Your task to perform on an android device: toggle javascript in the chrome app Image 0: 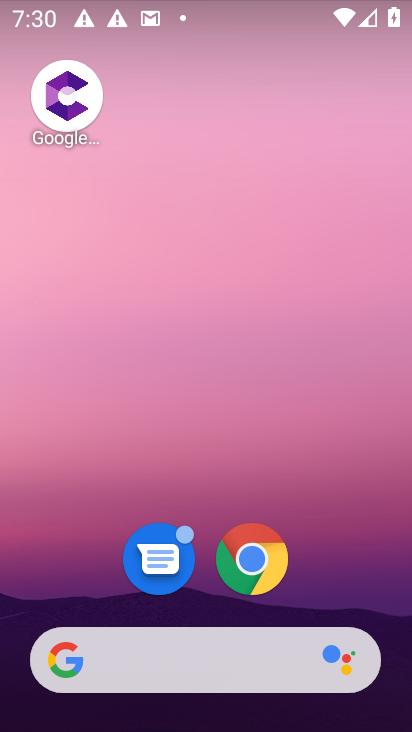
Step 0: click (242, 544)
Your task to perform on an android device: toggle javascript in the chrome app Image 1: 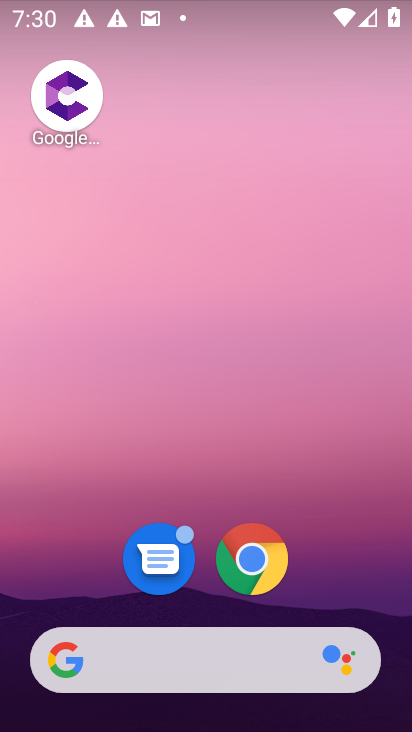
Step 1: click (242, 544)
Your task to perform on an android device: toggle javascript in the chrome app Image 2: 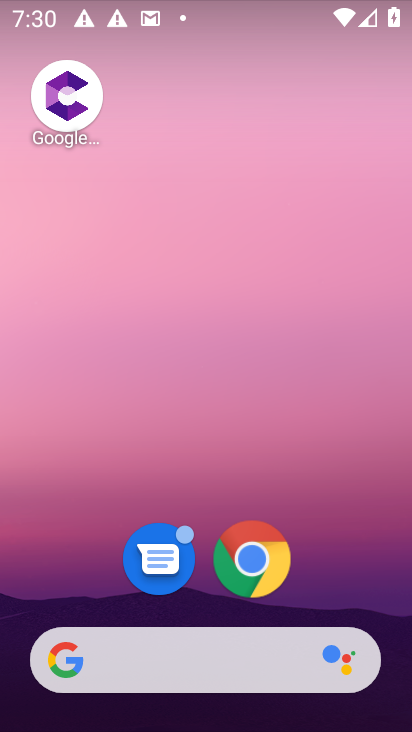
Step 2: click (242, 544)
Your task to perform on an android device: toggle javascript in the chrome app Image 3: 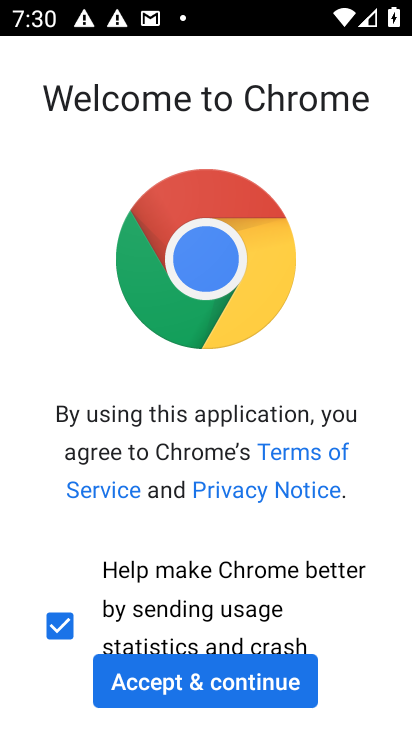
Step 3: click (117, 694)
Your task to perform on an android device: toggle javascript in the chrome app Image 4: 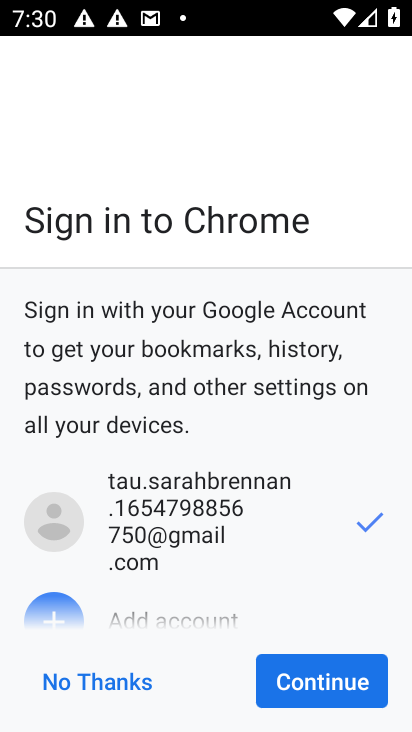
Step 4: click (282, 688)
Your task to perform on an android device: toggle javascript in the chrome app Image 5: 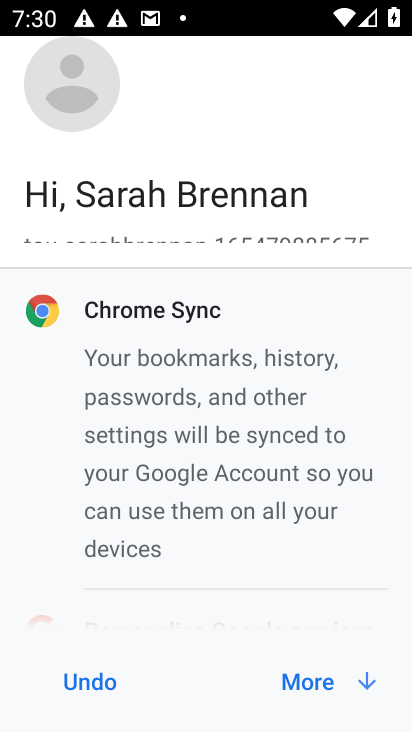
Step 5: click (291, 687)
Your task to perform on an android device: toggle javascript in the chrome app Image 6: 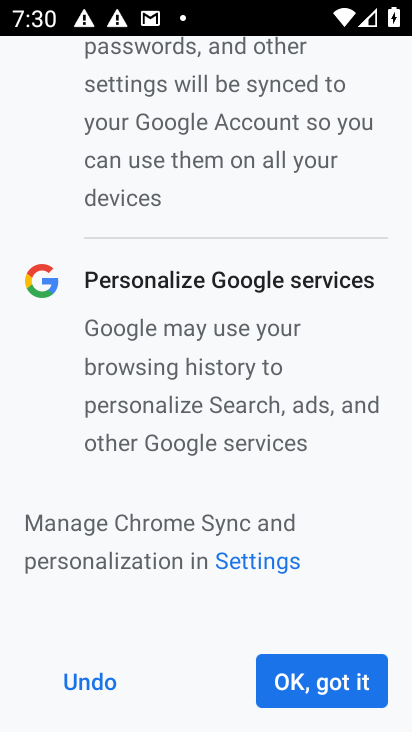
Step 6: click (291, 687)
Your task to perform on an android device: toggle javascript in the chrome app Image 7: 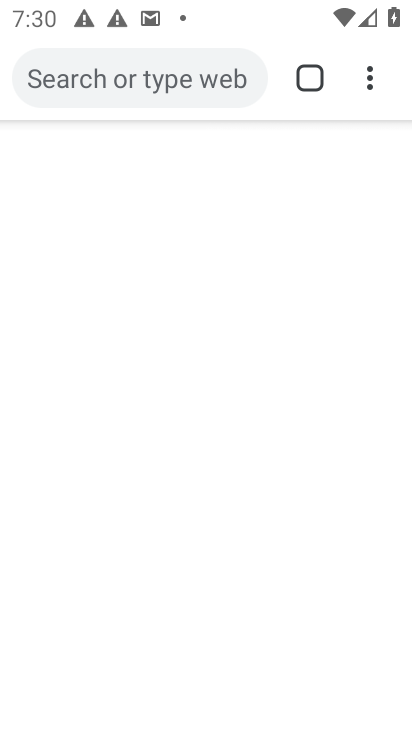
Step 7: click (374, 78)
Your task to perform on an android device: toggle javascript in the chrome app Image 8: 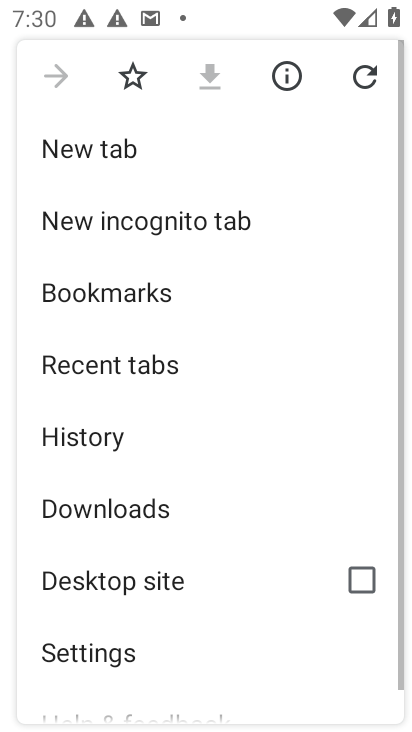
Step 8: click (128, 658)
Your task to perform on an android device: toggle javascript in the chrome app Image 9: 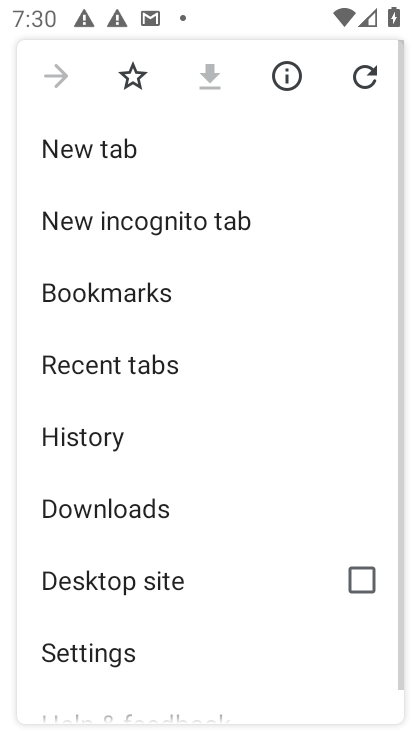
Step 9: click (128, 658)
Your task to perform on an android device: toggle javascript in the chrome app Image 10: 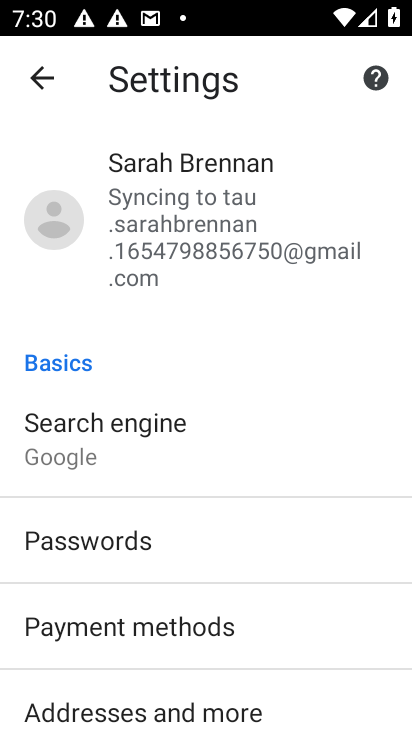
Step 10: drag from (246, 657) to (242, 461)
Your task to perform on an android device: toggle javascript in the chrome app Image 11: 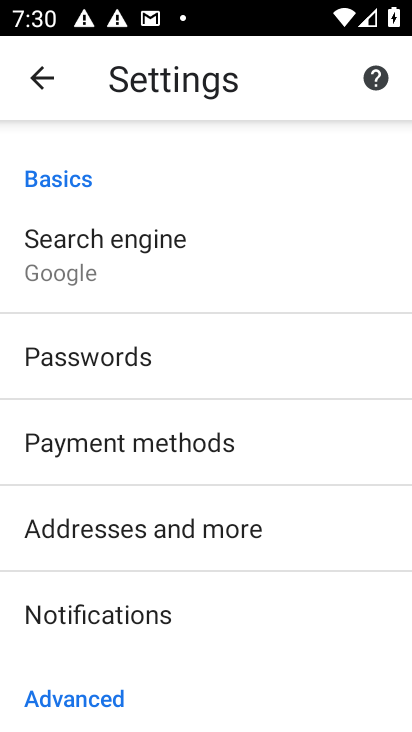
Step 11: drag from (275, 657) to (267, 518)
Your task to perform on an android device: toggle javascript in the chrome app Image 12: 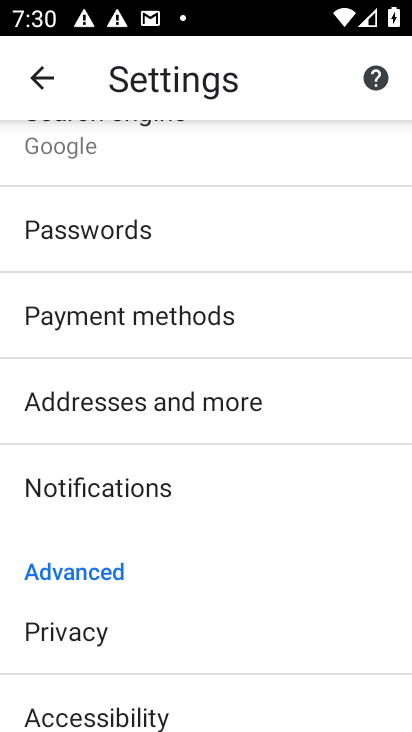
Step 12: drag from (367, 680) to (346, 548)
Your task to perform on an android device: toggle javascript in the chrome app Image 13: 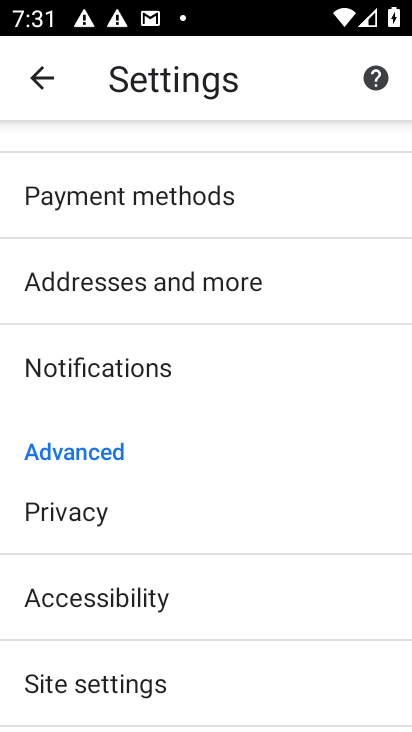
Step 13: click (122, 696)
Your task to perform on an android device: toggle javascript in the chrome app Image 14: 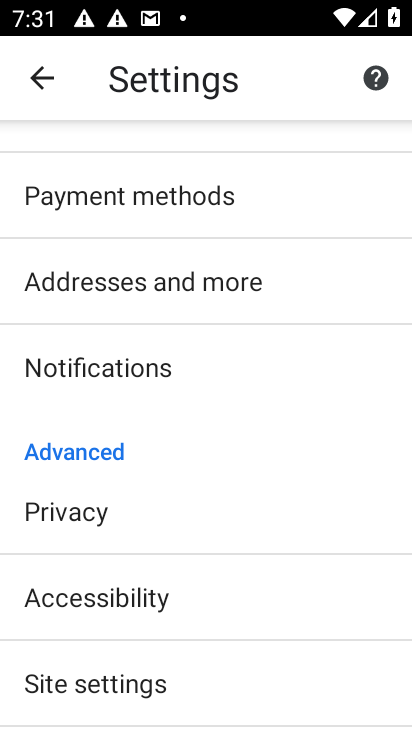
Step 14: click (122, 696)
Your task to perform on an android device: toggle javascript in the chrome app Image 15: 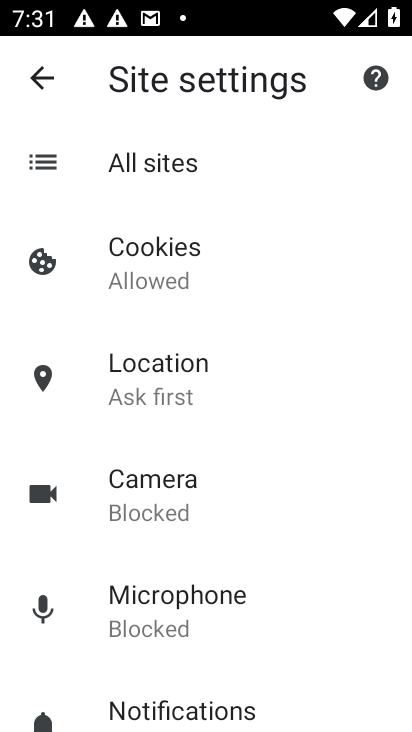
Step 15: drag from (335, 652) to (331, 464)
Your task to perform on an android device: toggle javascript in the chrome app Image 16: 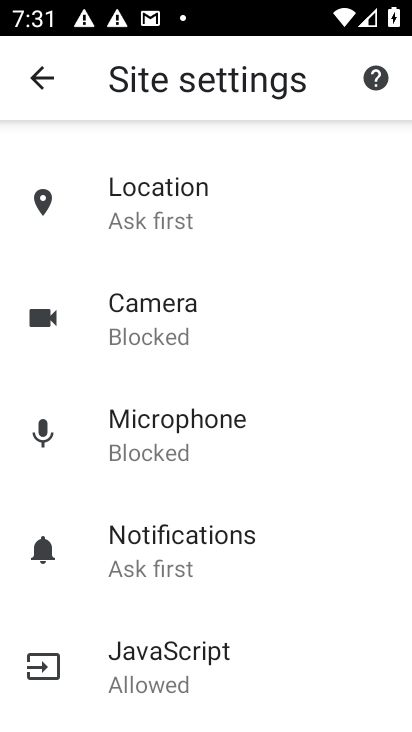
Step 16: click (147, 664)
Your task to perform on an android device: toggle javascript in the chrome app Image 17: 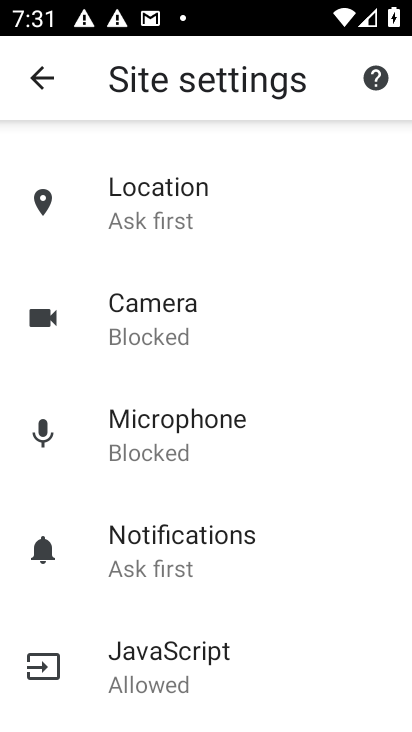
Step 17: click (147, 664)
Your task to perform on an android device: toggle javascript in the chrome app Image 18: 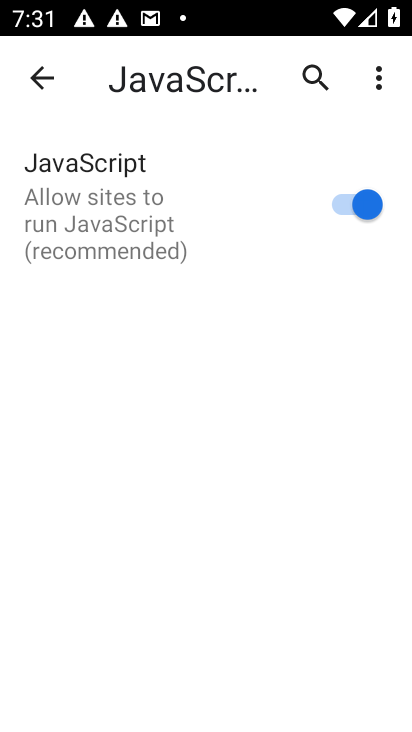
Step 18: click (377, 209)
Your task to perform on an android device: toggle javascript in the chrome app Image 19: 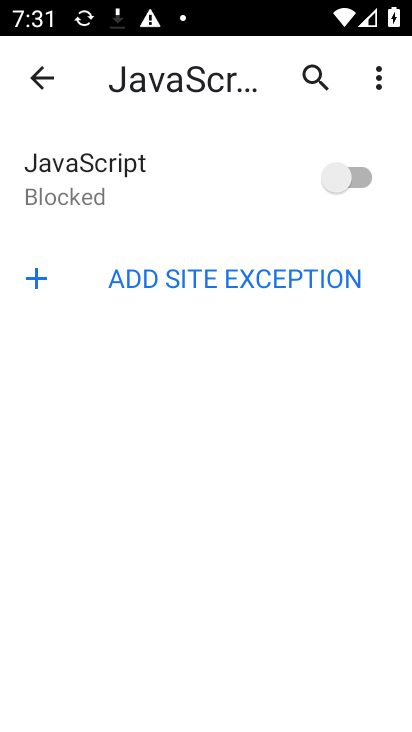
Step 19: task complete